Your task to perform on an android device: turn off location history Image 0: 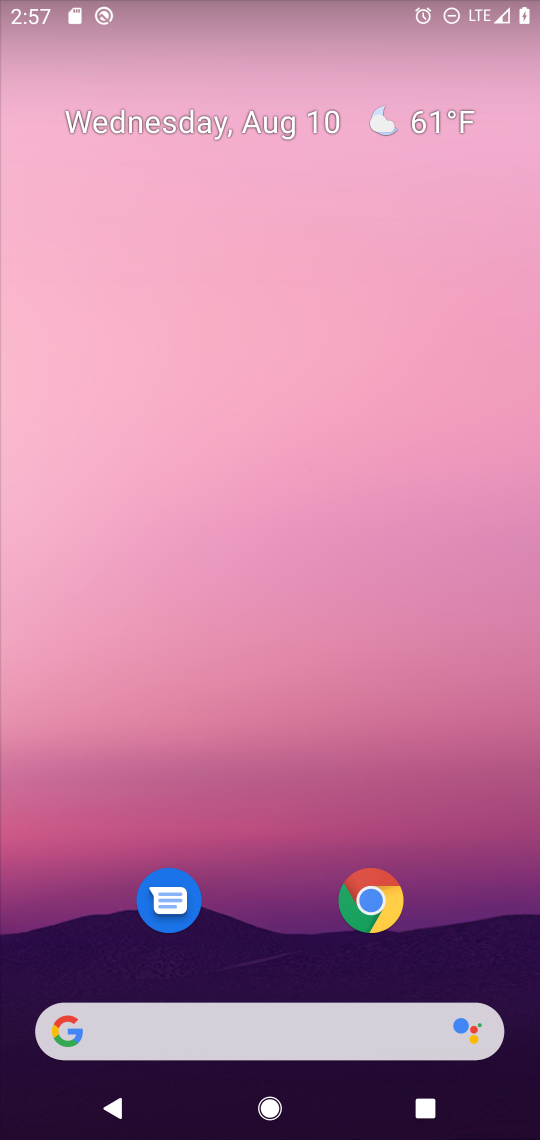
Step 0: drag from (275, 875) to (383, 4)
Your task to perform on an android device: turn off location history Image 1: 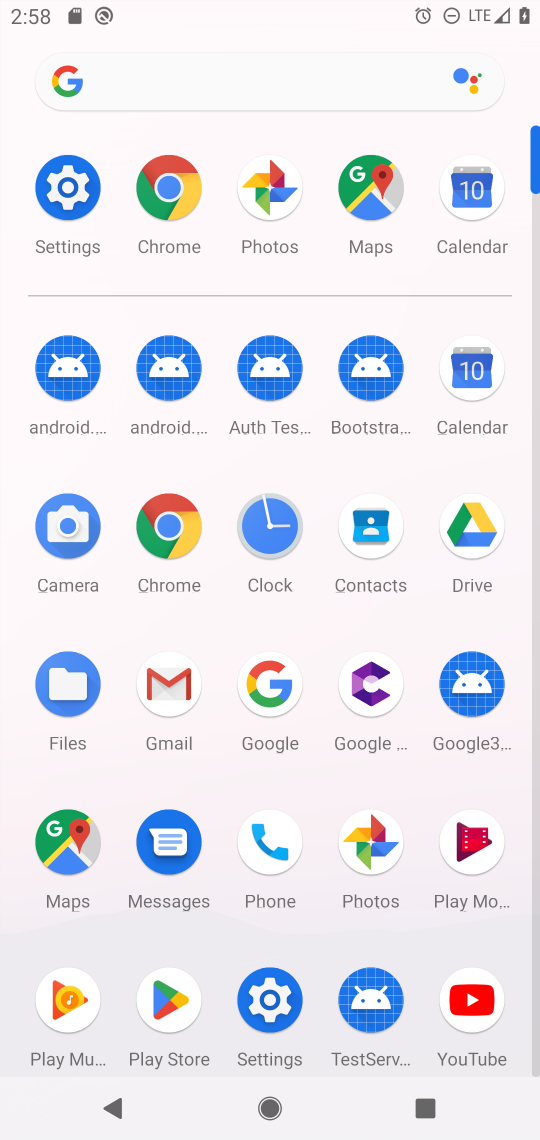
Step 1: click (77, 175)
Your task to perform on an android device: turn off location history Image 2: 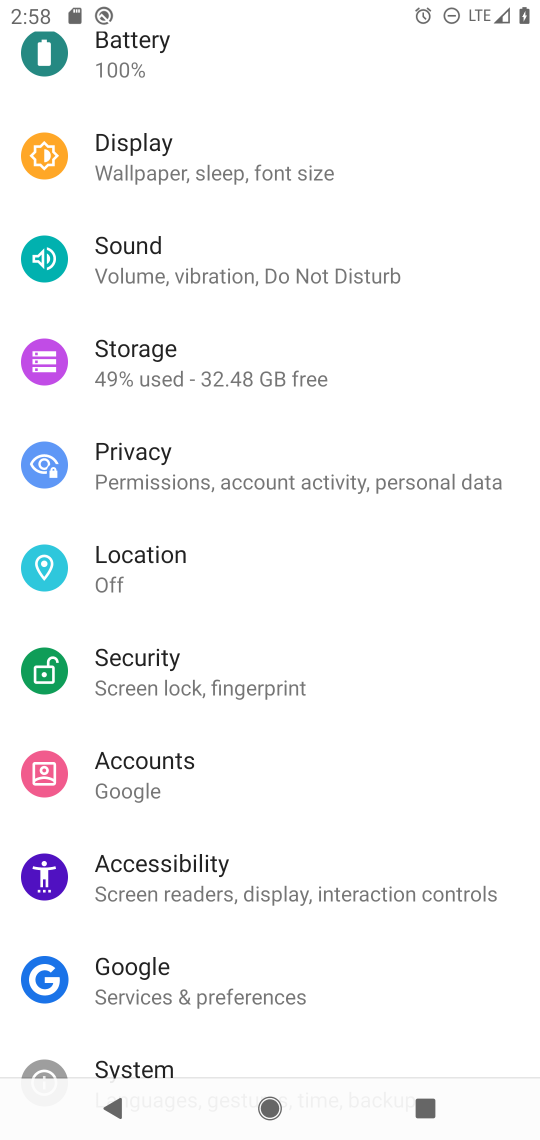
Step 2: click (182, 559)
Your task to perform on an android device: turn off location history Image 3: 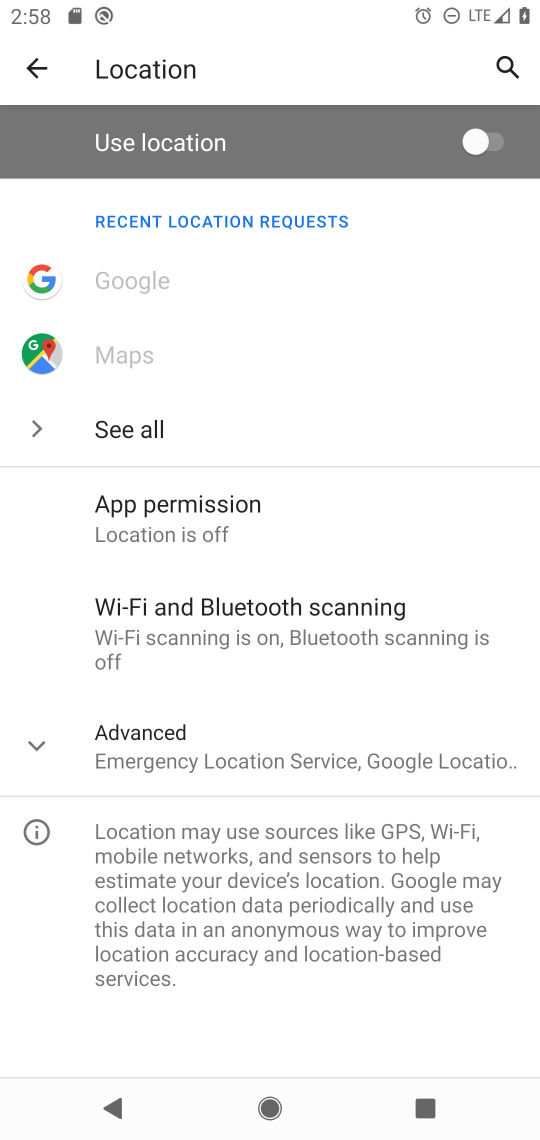
Step 3: click (34, 745)
Your task to perform on an android device: turn off location history Image 4: 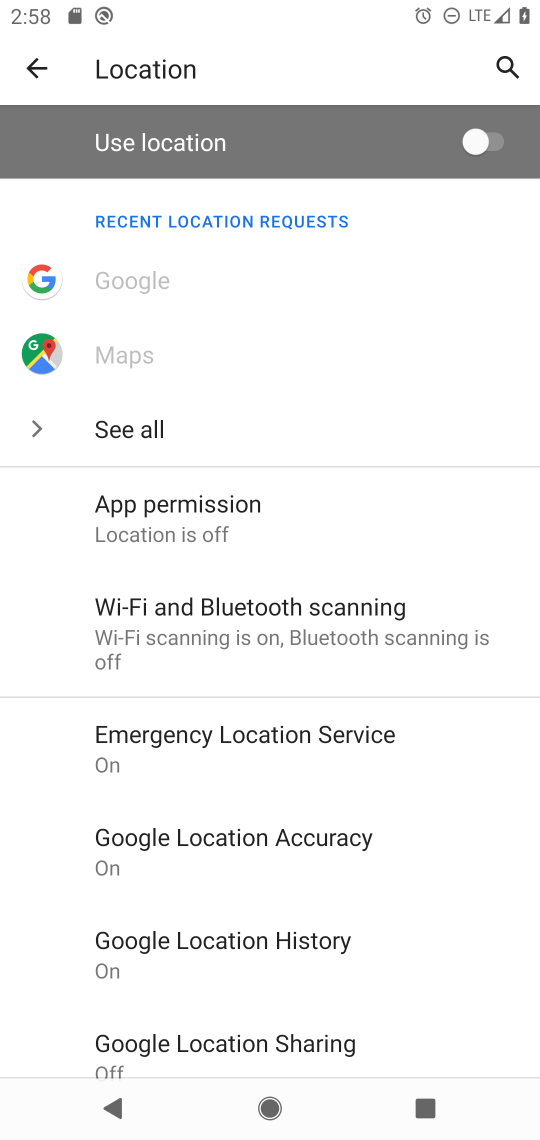
Step 4: click (204, 949)
Your task to perform on an android device: turn off location history Image 5: 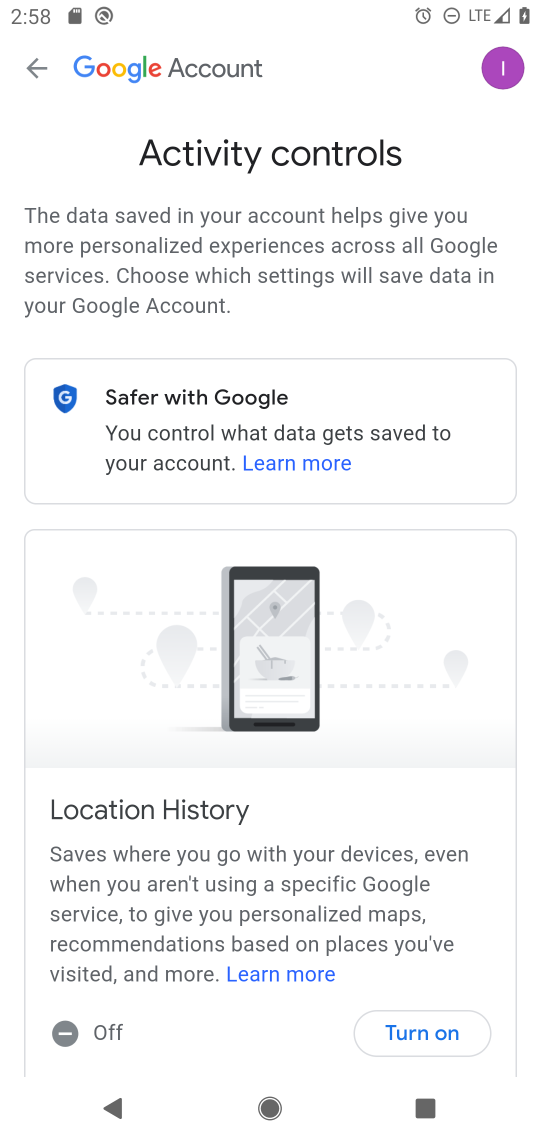
Step 5: task complete